Your task to perform on an android device: delete browsing data in the chrome app Image 0: 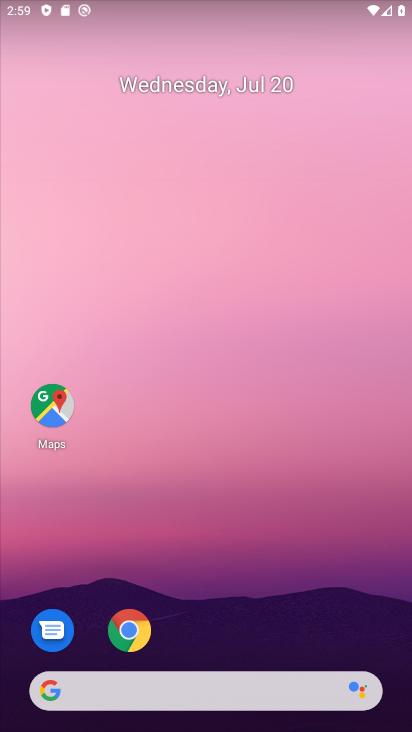
Step 0: drag from (205, 624) to (171, 226)
Your task to perform on an android device: delete browsing data in the chrome app Image 1: 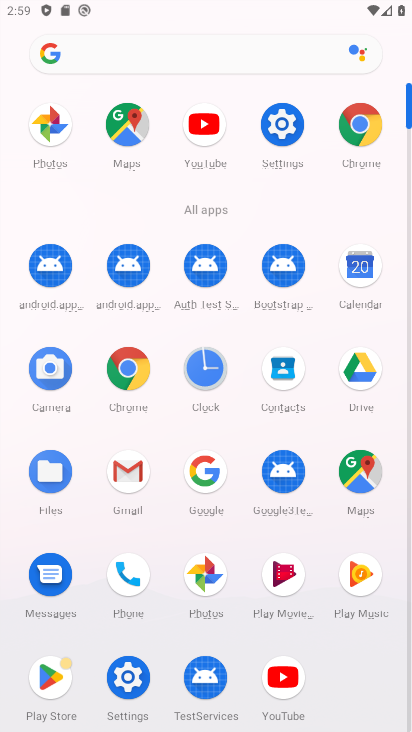
Step 1: click (365, 128)
Your task to perform on an android device: delete browsing data in the chrome app Image 2: 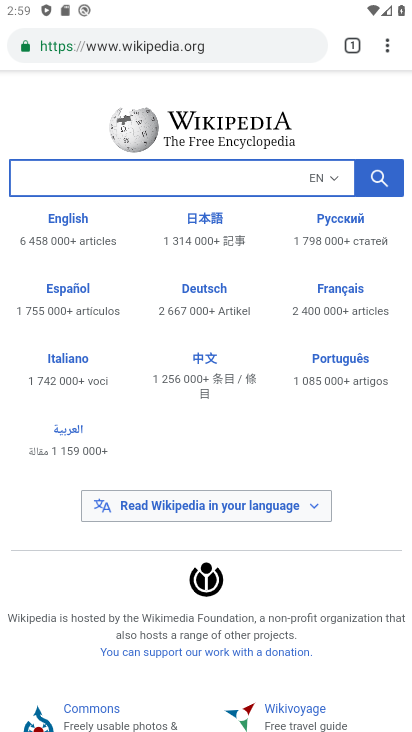
Step 2: drag from (395, 42) to (228, 558)
Your task to perform on an android device: delete browsing data in the chrome app Image 3: 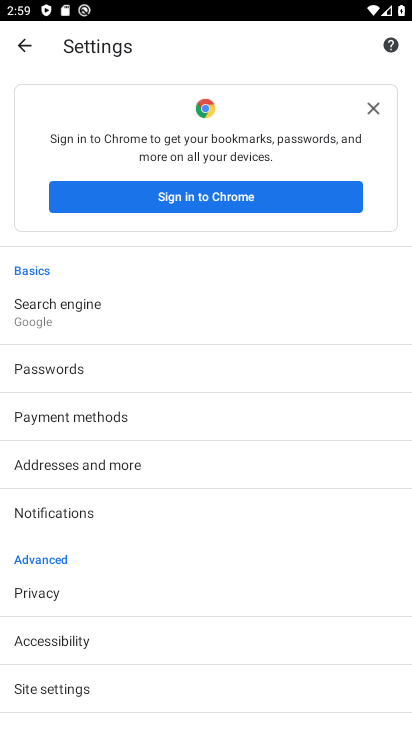
Step 3: click (27, 595)
Your task to perform on an android device: delete browsing data in the chrome app Image 4: 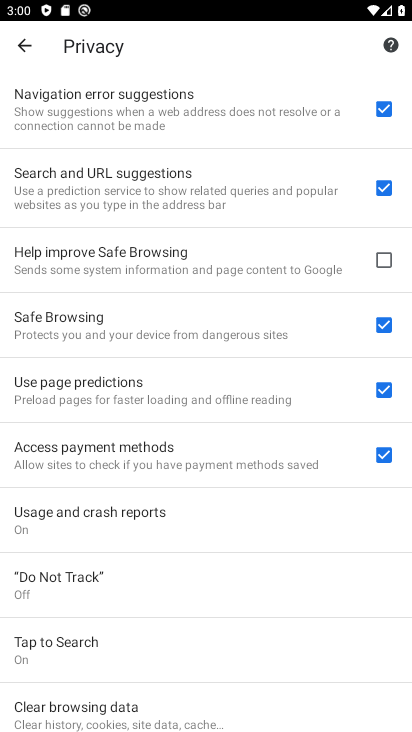
Step 4: click (85, 713)
Your task to perform on an android device: delete browsing data in the chrome app Image 5: 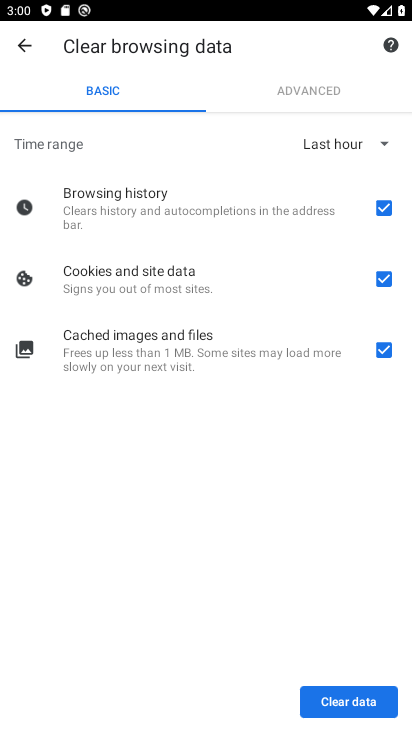
Step 5: click (392, 284)
Your task to perform on an android device: delete browsing data in the chrome app Image 6: 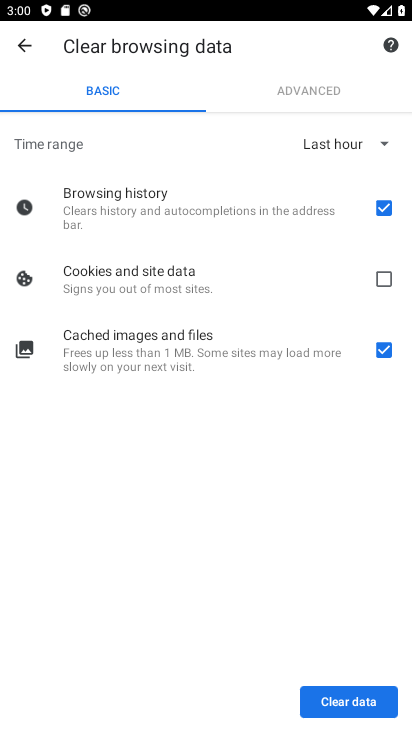
Step 6: click (368, 345)
Your task to perform on an android device: delete browsing data in the chrome app Image 7: 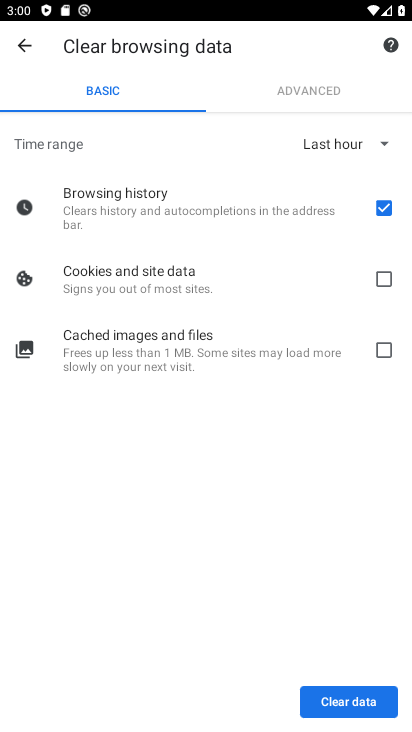
Step 7: click (349, 693)
Your task to perform on an android device: delete browsing data in the chrome app Image 8: 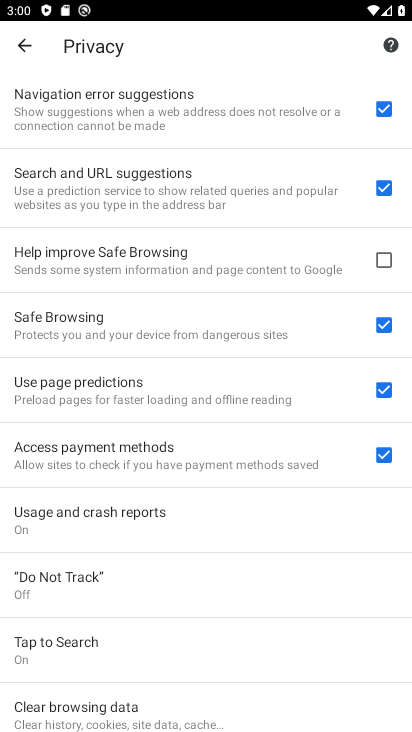
Step 8: task complete